Your task to perform on an android device: toggle wifi Image 0: 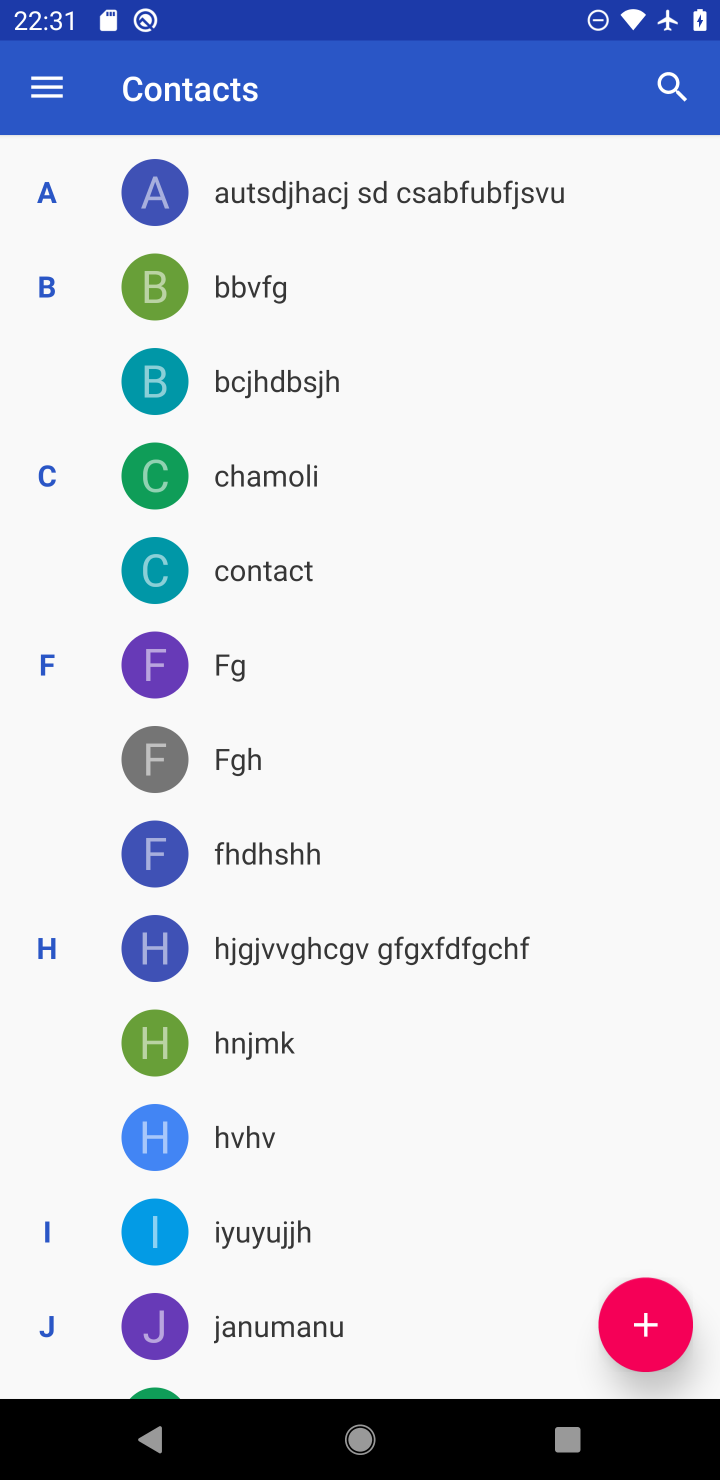
Step 0: press home button
Your task to perform on an android device: toggle wifi Image 1: 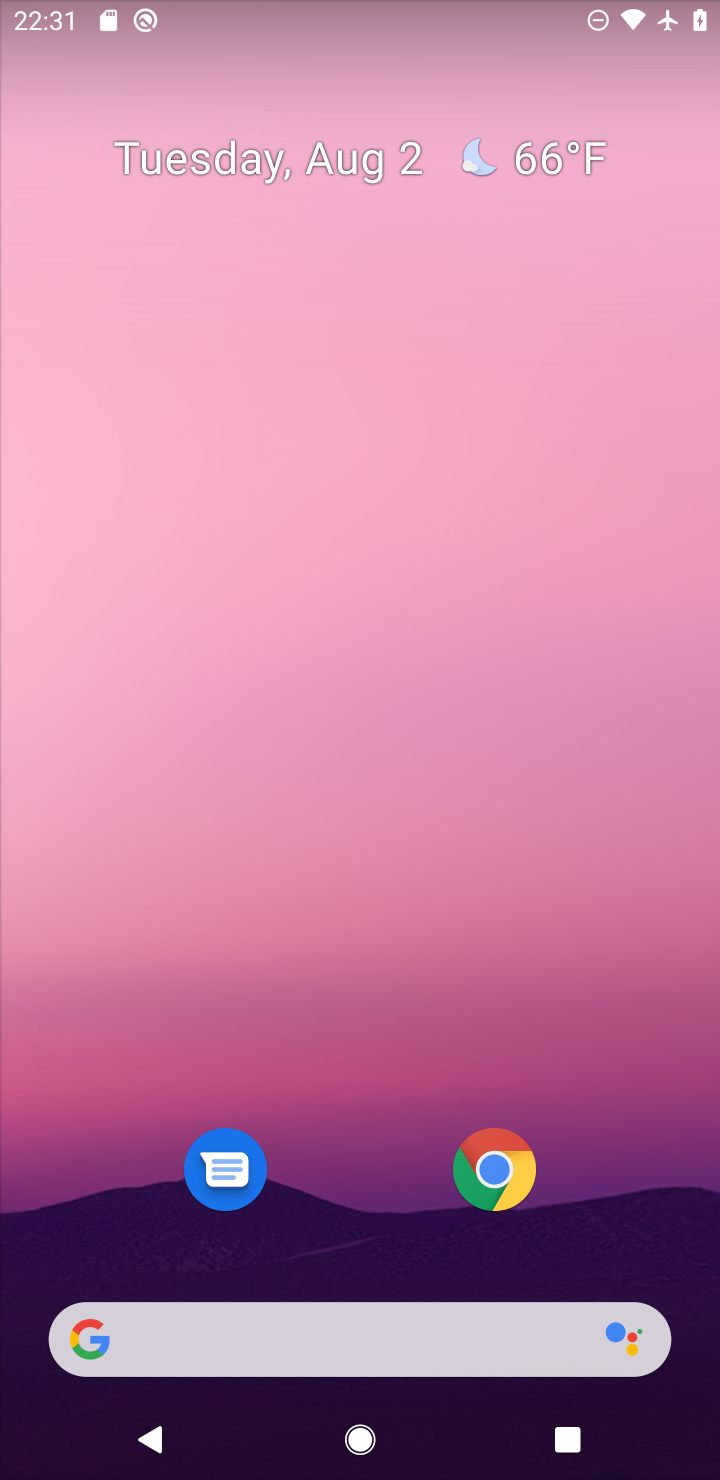
Step 1: drag from (375, 1241) to (312, 229)
Your task to perform on an android device: toggle wifi Image 2: 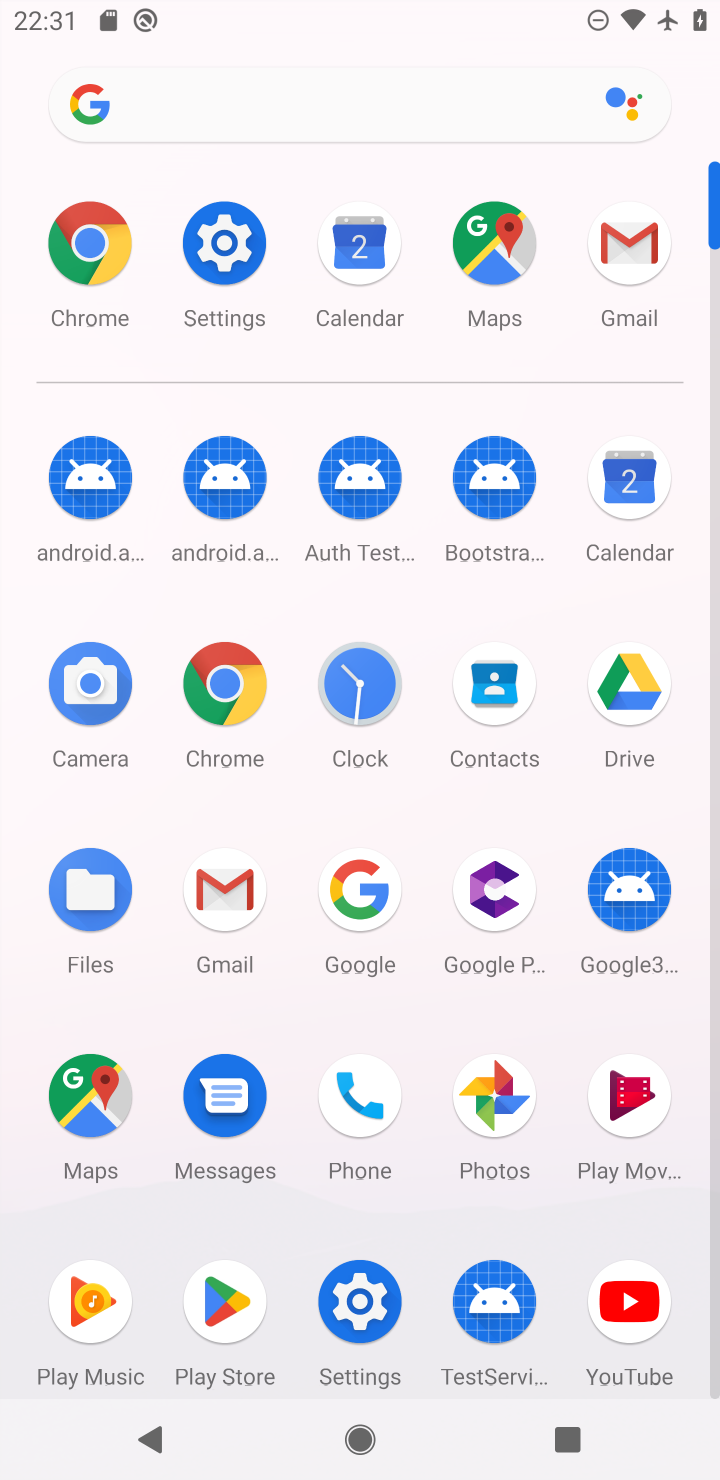
Step 2: click (220, 239)
Your task to perform on an android device: toggle wifi Image 3: 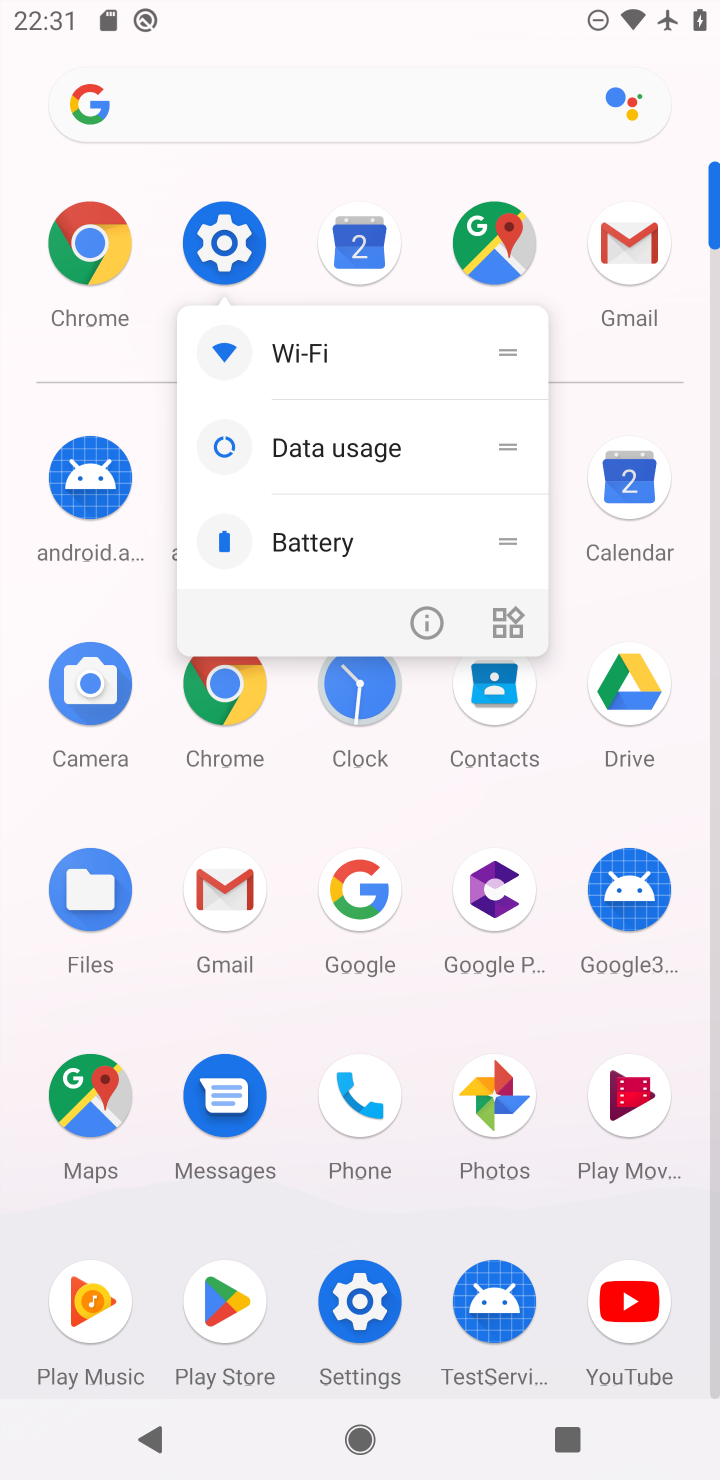
Step 3: click (211, 249)
Your task to perform on an android device: toggle wifi Image 4: 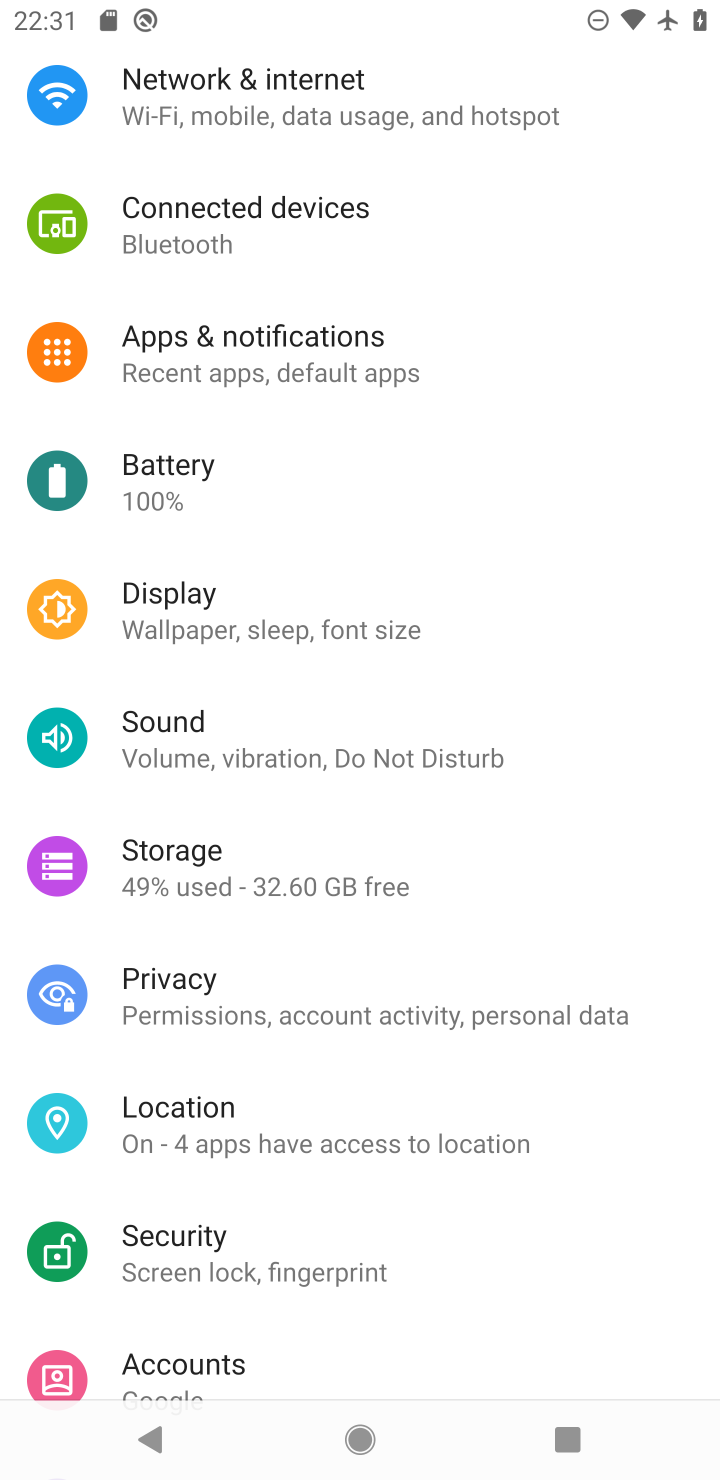
Step 4: drag from (245, 177) to (261, 1082)
Your task to perform on an android device: toggle wifi Image 5: 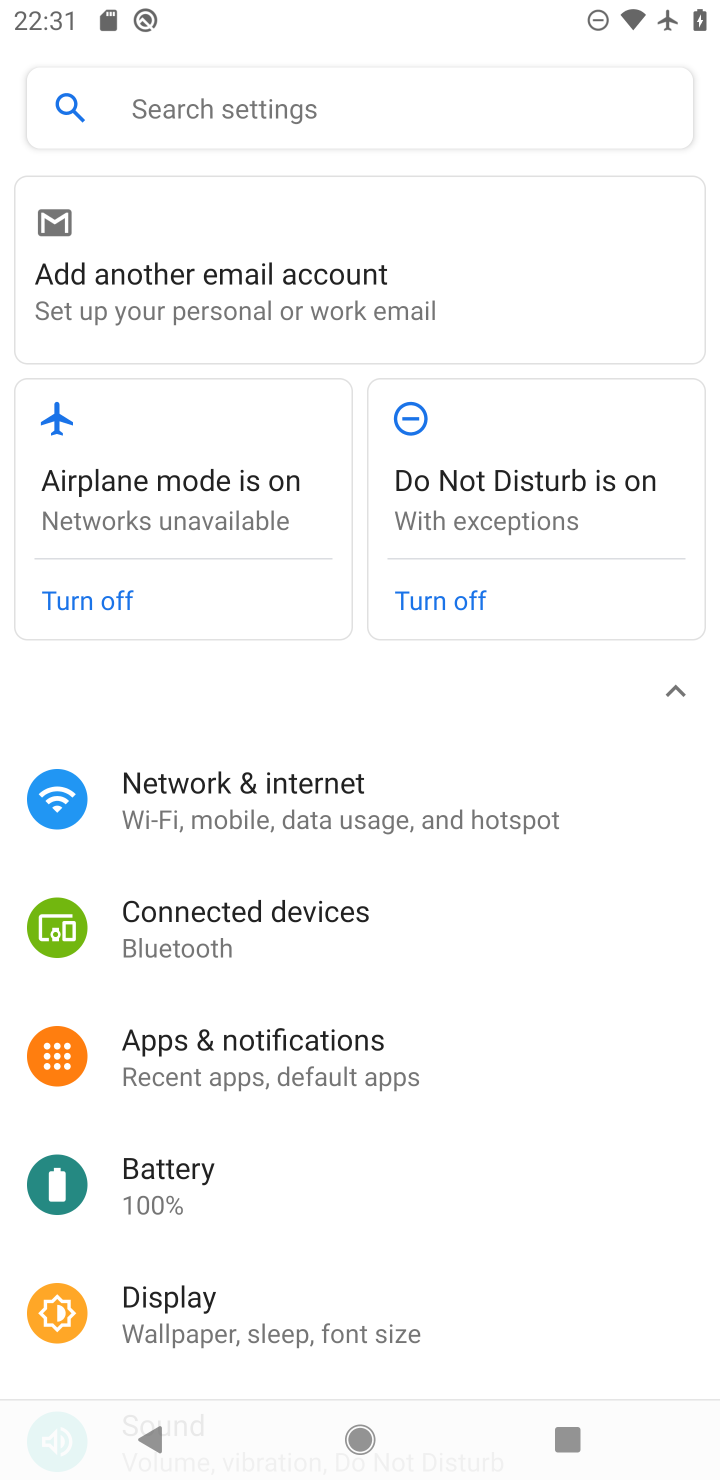
Step 5: click (189, 813)
Your task to perform on an android device: toggle wifi Image 6: 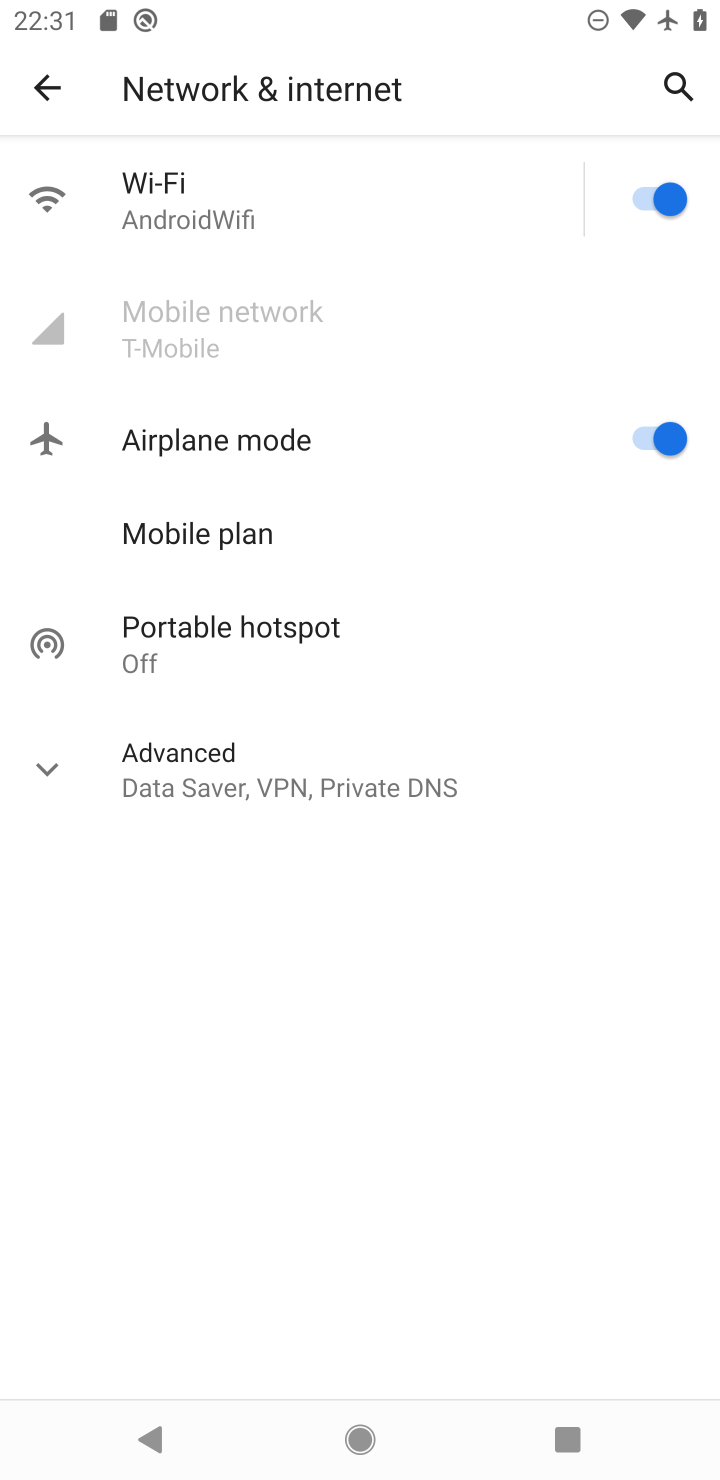
Step 6: click (645, 197)
Your task to perform on an android device: toggle wifi Image 7: 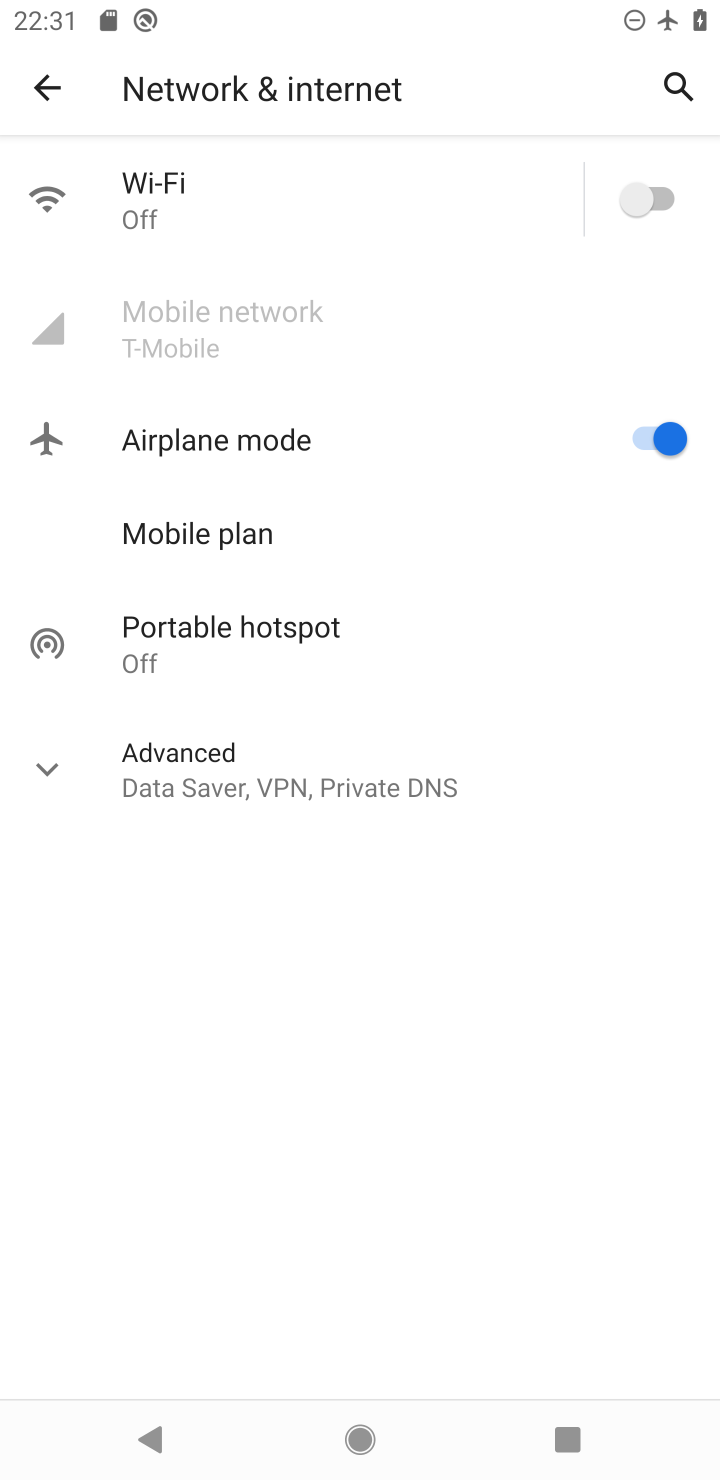
Step 7: task complete